Your task to perform on an android device: Is it going to rain this weekend? Image 0: 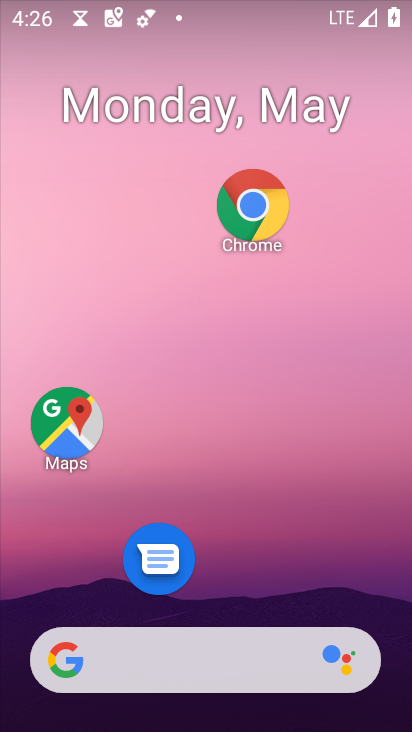
Step 0: drag from (283, 601) to (230, 315)
Your task to perform on an android device: Is it going to rain this weekend? Image 1: 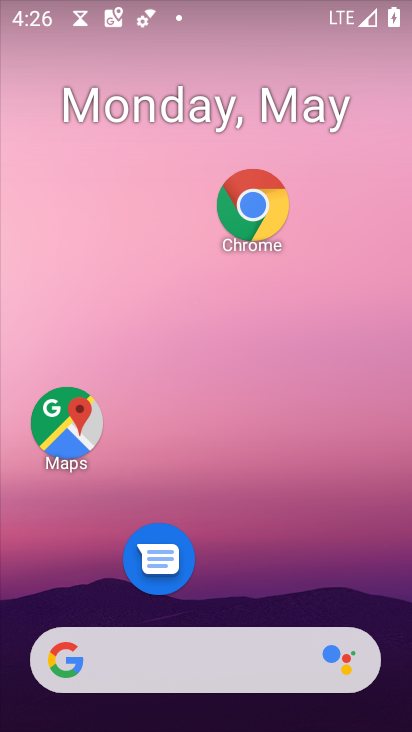
Step 1: drag from (229, 578) to (212, 169)
Your task to perform on an android device: Is it going to rain this weekend? Image 2: 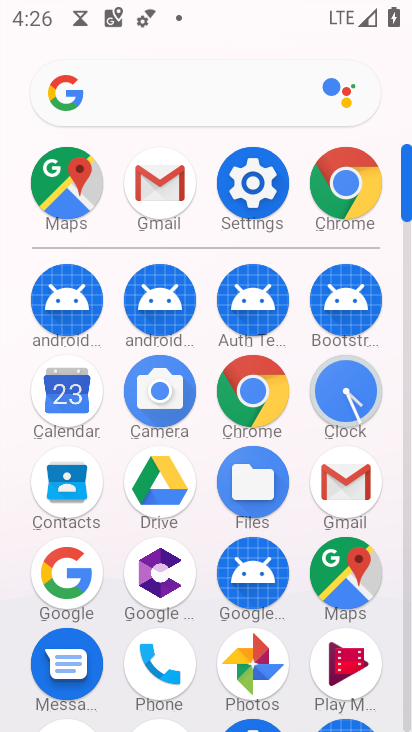
Step 2: click (56, 578)
Your task to perform on an android device: Is it going to rain this weekend? Image 3: 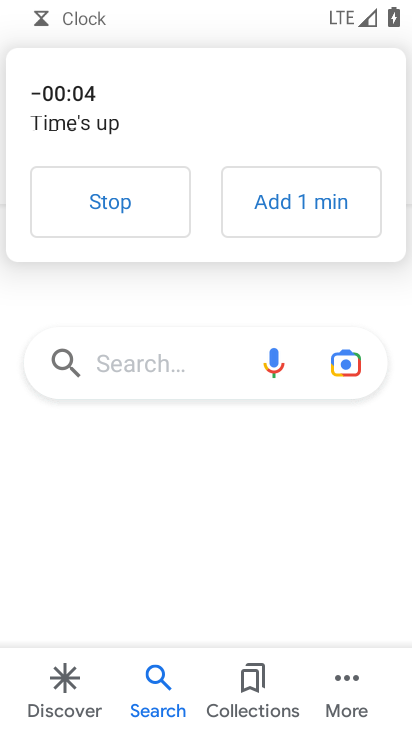
Step 3: click (117, 226)
Your task to perform on an android device: Is it going to rain this weekend? Image 4: 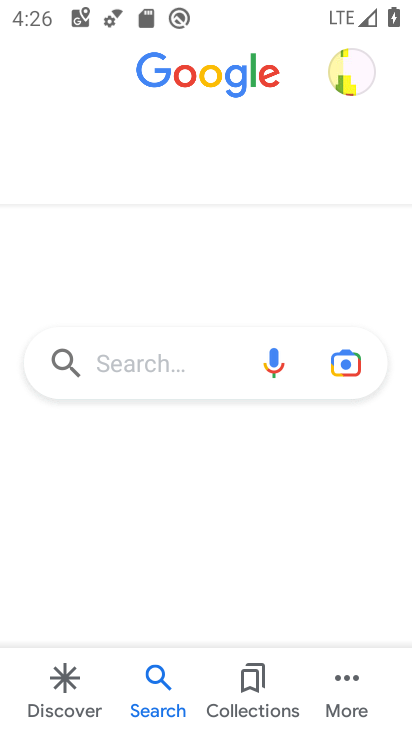
Step 4: click (133, 372)
Your task to perform on an android device: Is it going to rain this weekend? Image 5: 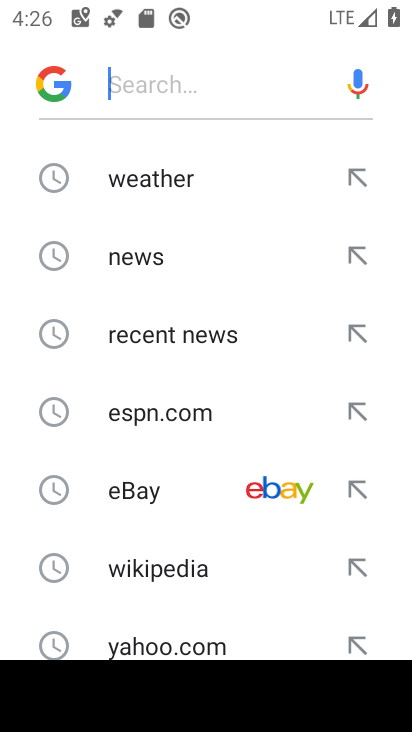
Step 5: click (183, 172)
Your task to perform on an android device: Is it going to rain this weekend? Image 6: 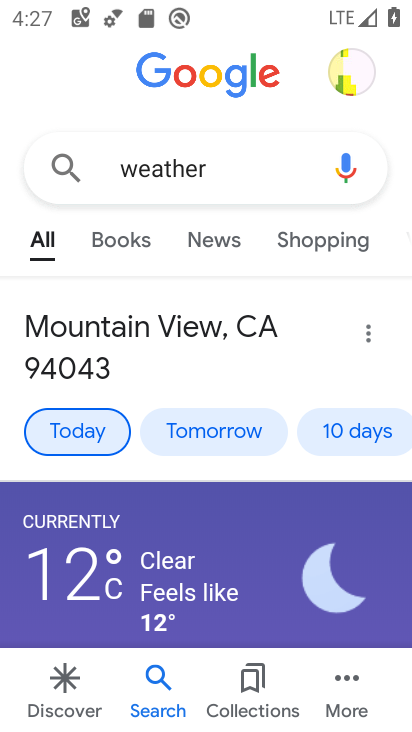
Step 6: click (371, 439)
Your task to perform on an android device: Is it going to rain this weekend? Image 7: 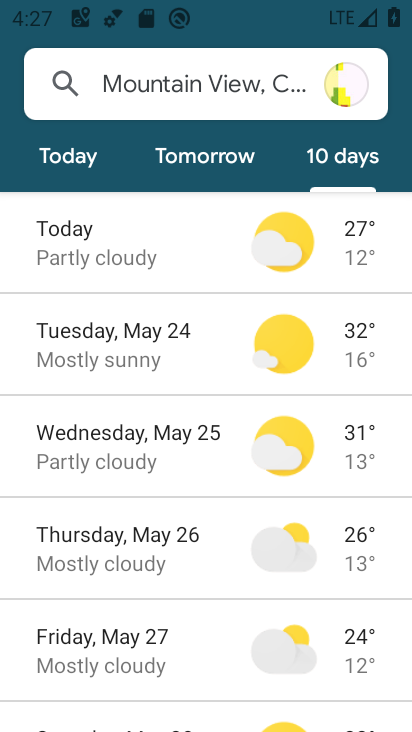
Step 7: task complete